Your task to perform on an android device: clear history in the chrome app Image 0: 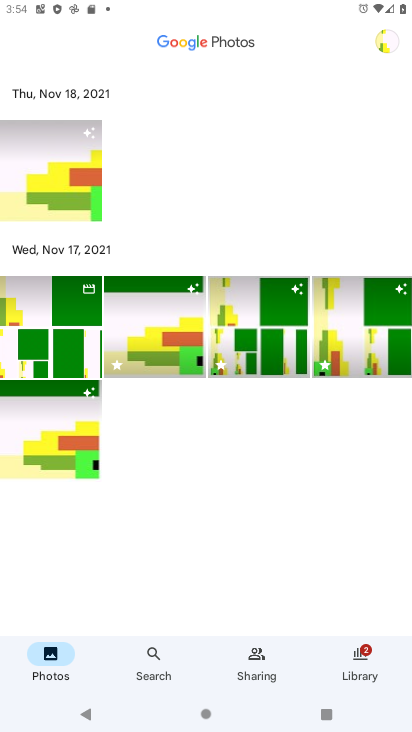
Step 0: press home button
Your task to perform on an android device: clear history in the chrome app Image 1: 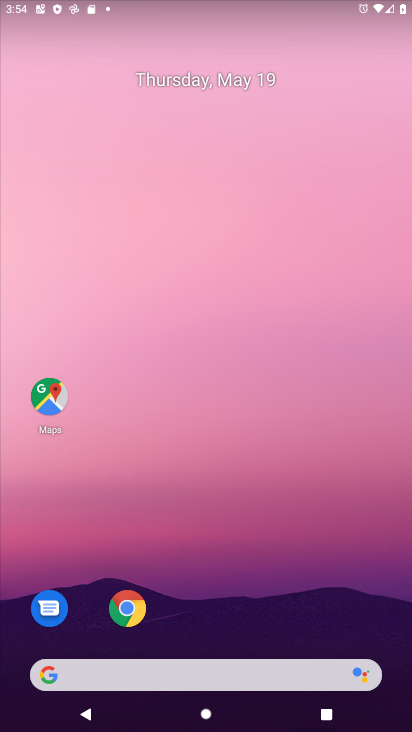
Step 1: click (136, 611)
Your task to perform on an android device: clear history in the chrome app Image 2: 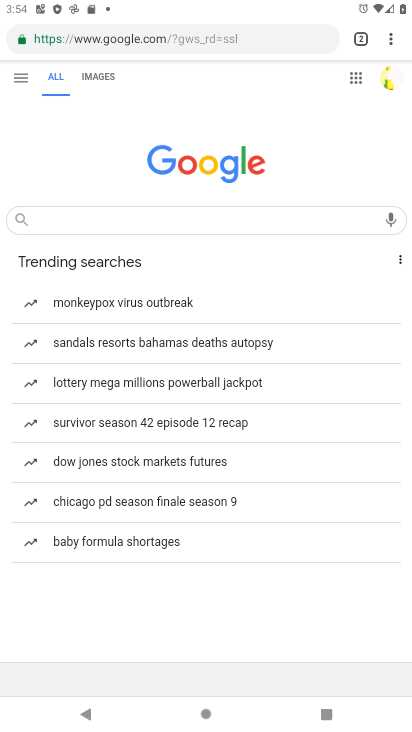
Step 2: click (386, 44)
Your task to perform on an android device: clear history in the chrome app Image 3: 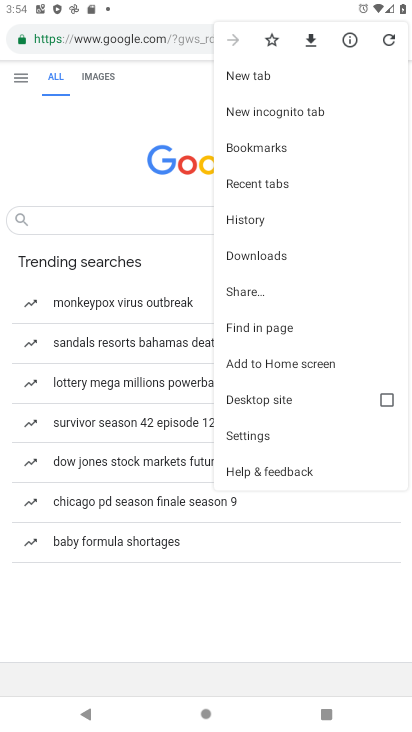
Step 3: click (282, 226)
Your task to perform on an android device: clear history in the chrome app Image 4: 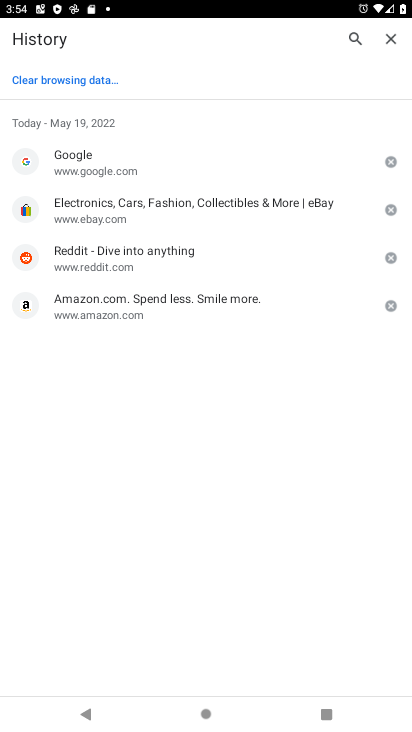
Step 4: click (82, 83)
Your task to perform on an android device: clear history in the chrome app Image 5: 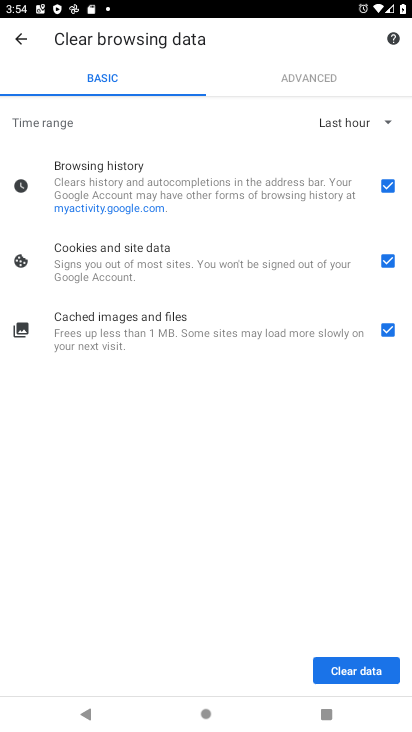
Step 5: click (328, 660)
Your task to perform on an android device: clear history in the chrome app Image 6: 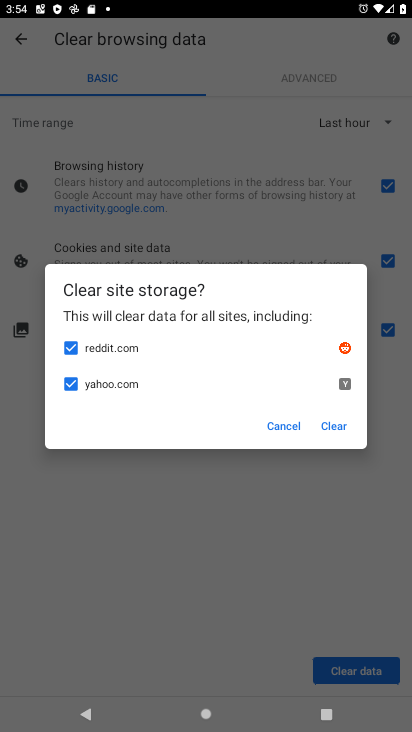
Step 6: click (331, 433)
Your task to perform on an android device: clear history in the chrome app Image 7: 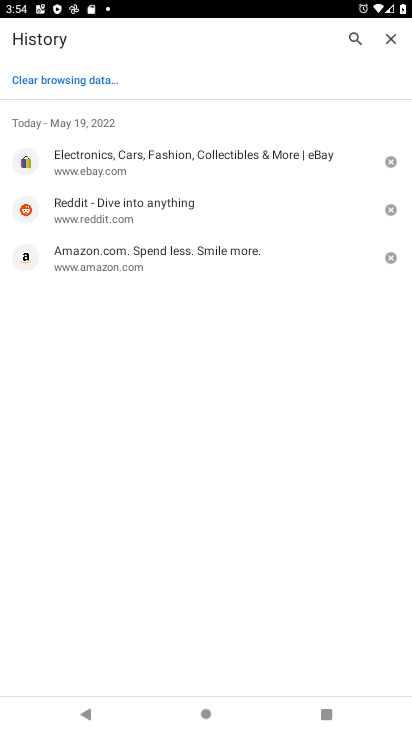
Step 7: task complete